Your task to perform on an android device: toggle location history Image 0: 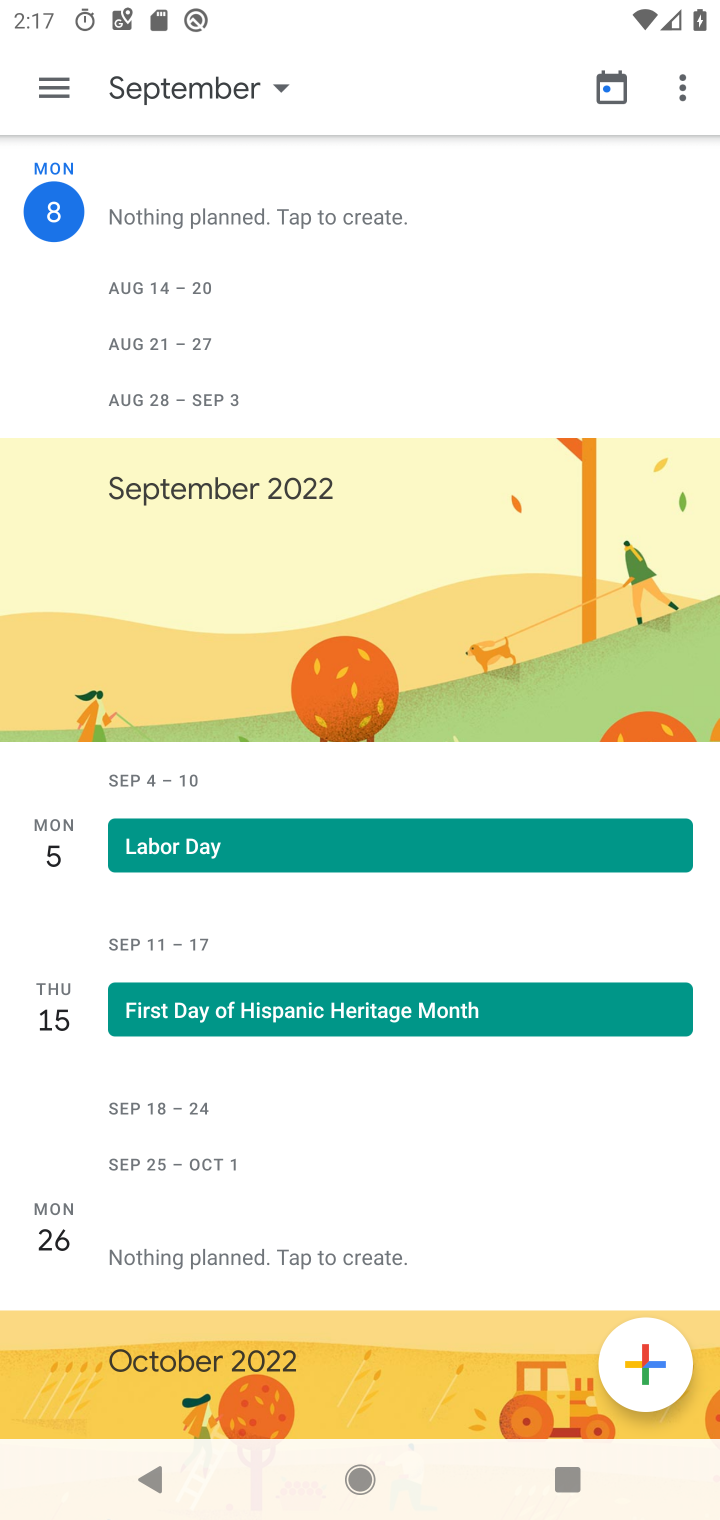
Step 0: press home button
Your task to perform on an android device: toggle location history Image 1: 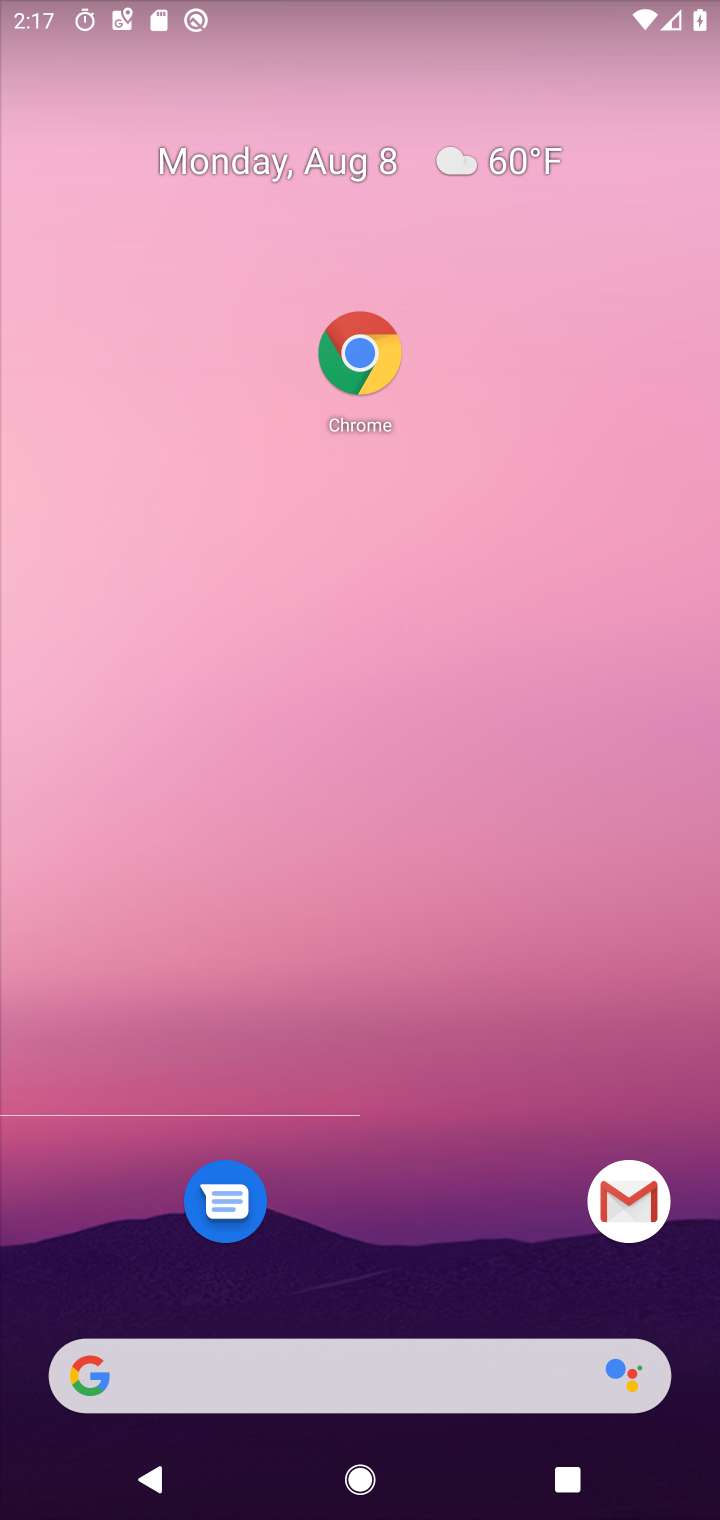
Step 1: drag from (439, 1419) to (572, 392)
Your task to perform on an android device: toggle location history Image 2: 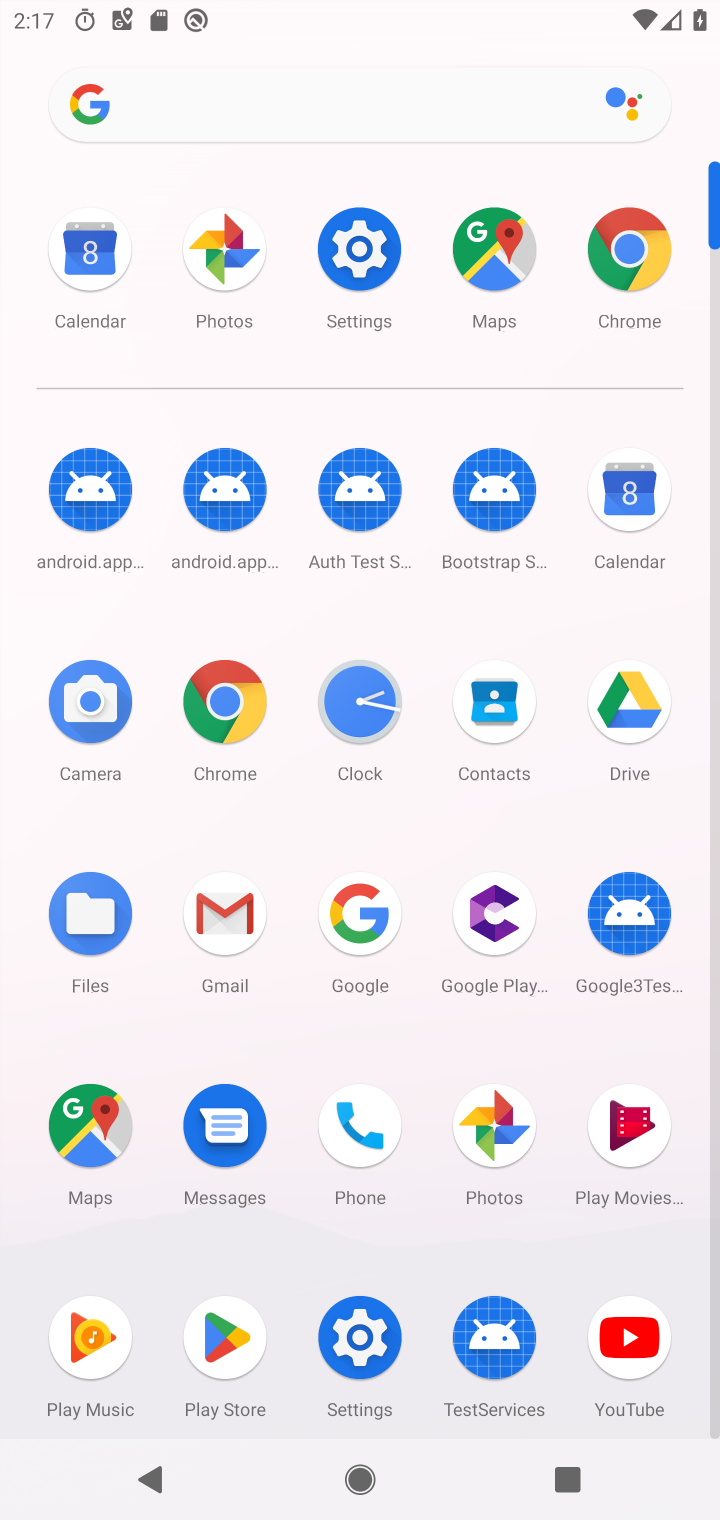
Step 2: click (350, 1308)
Your task to perform on an android device: toggle location history Image 3: 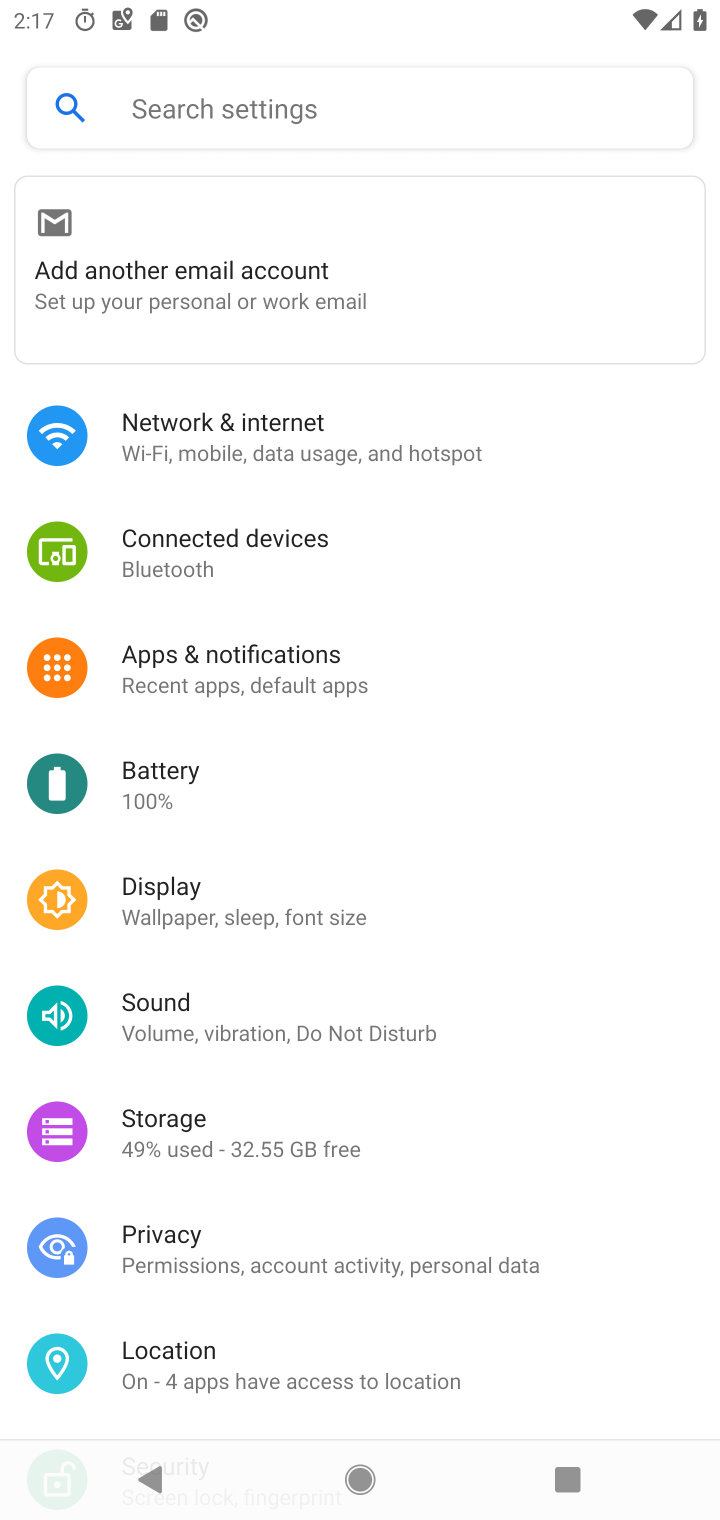
Step 3: click (228, 1358)
Your task to perform on an android device: toggle location history Image 4: 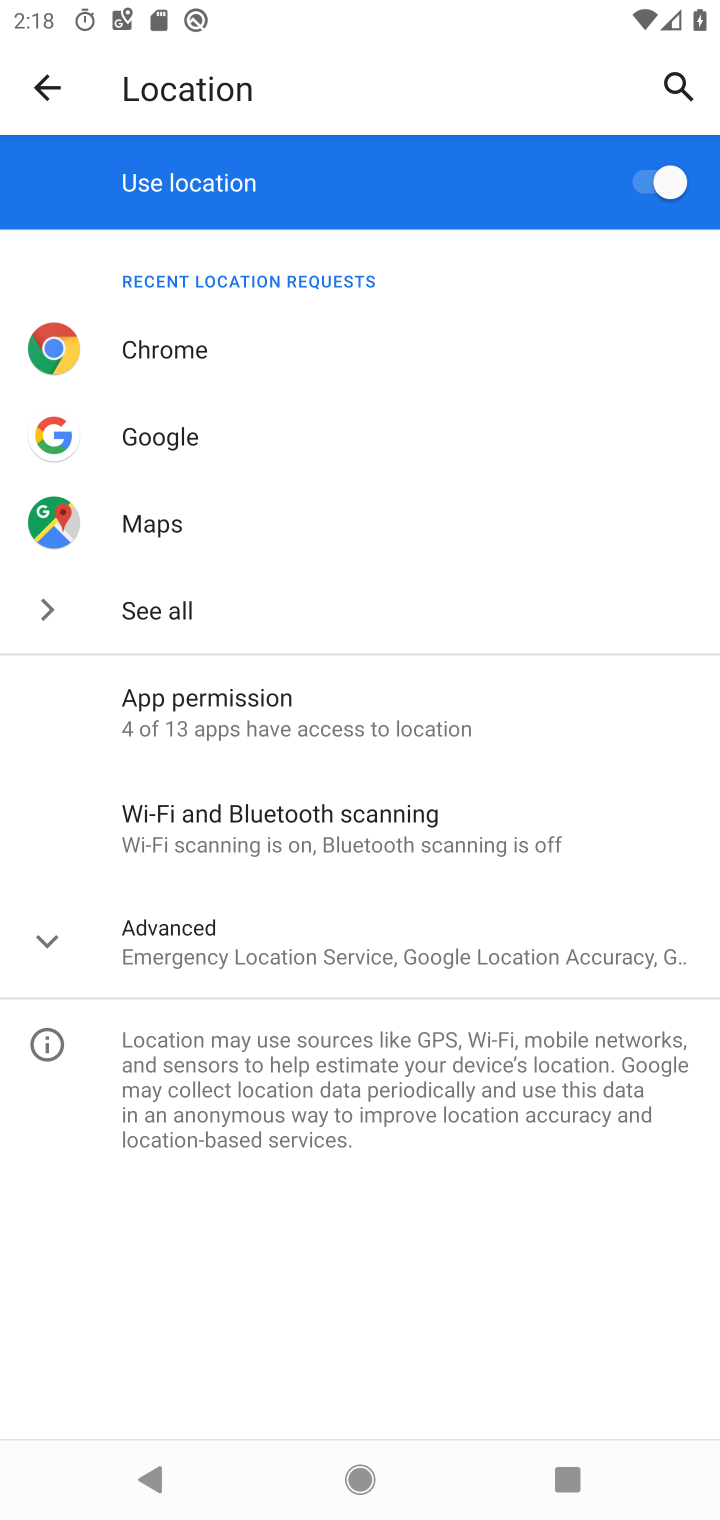
Step 4: click (43, 954)
Your task to perform on an android device: toggle location history Image 5: 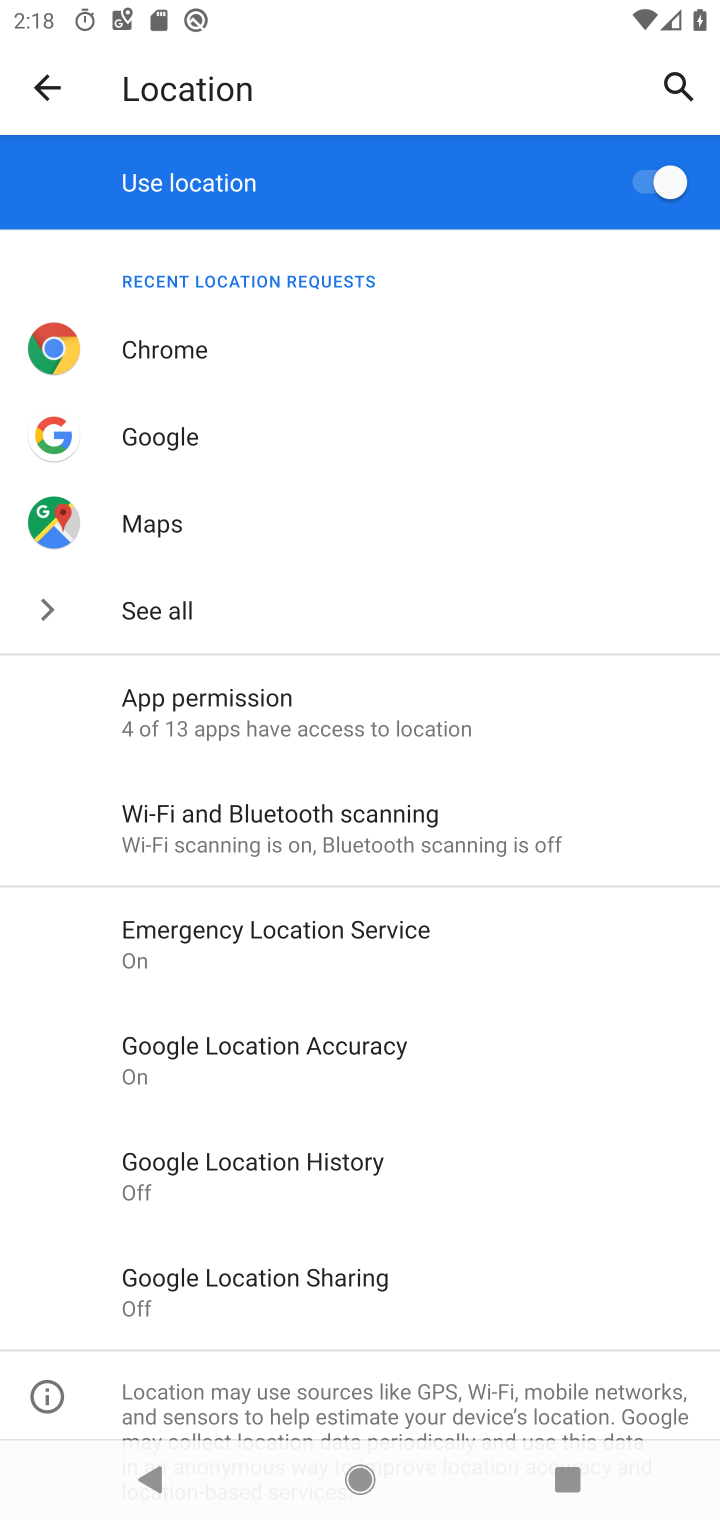
Step 5: click (301, 1155)
Your task to perform on an android device: toggle location history Image 6: 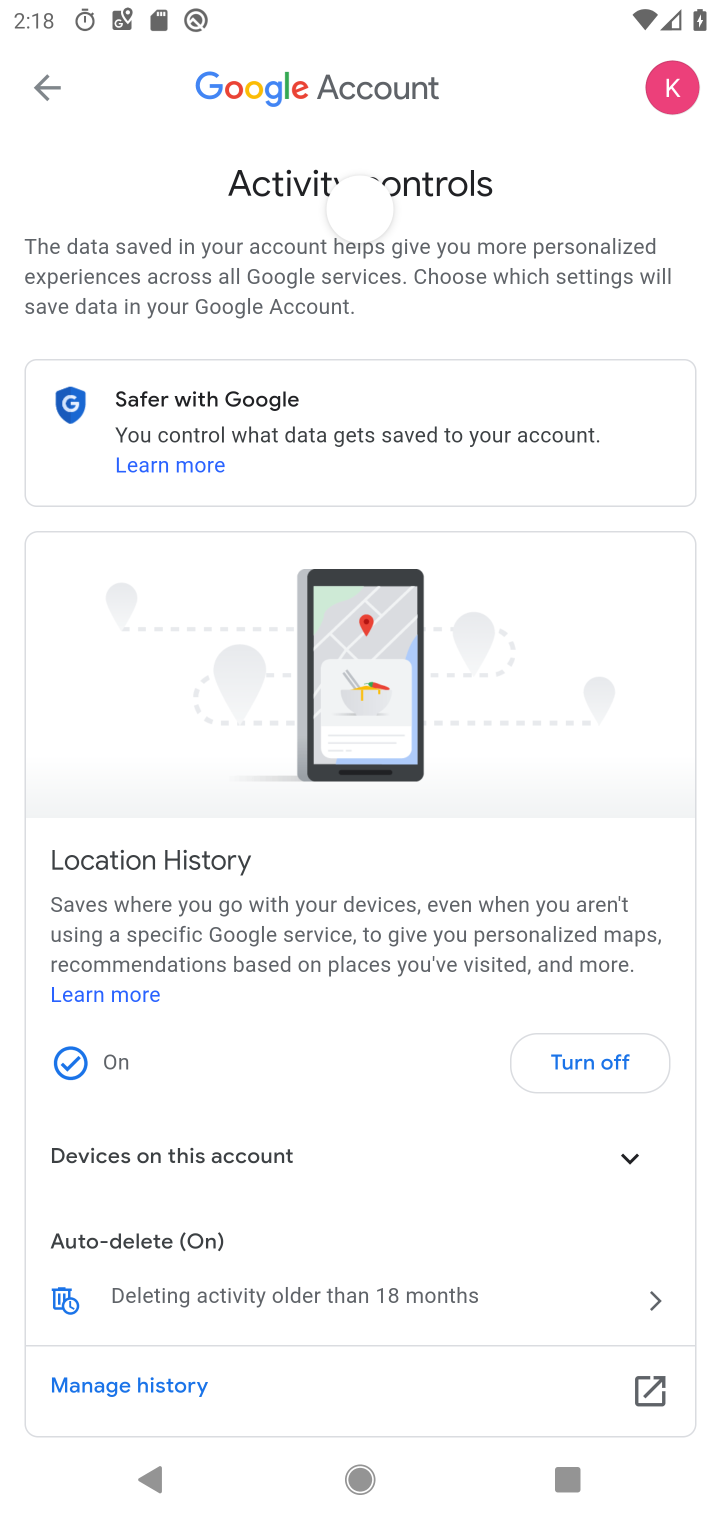
Step 6: task complete